Your task to perform on an android device: check data usage Image 0: 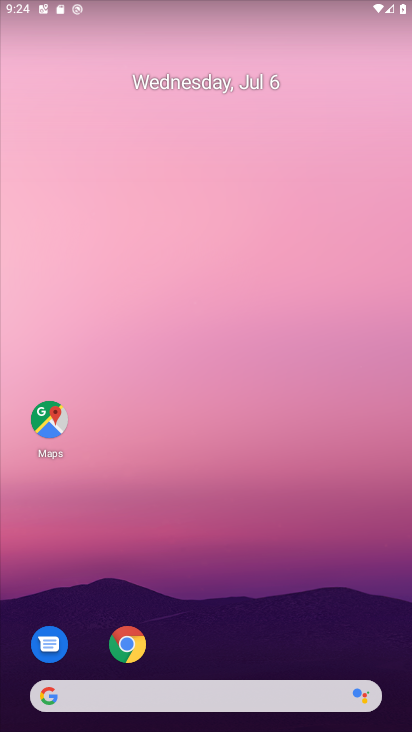
Step 0: drag from (255, 601) to (255, 32)
Your task to perform on an android device: check data usage Image 1: 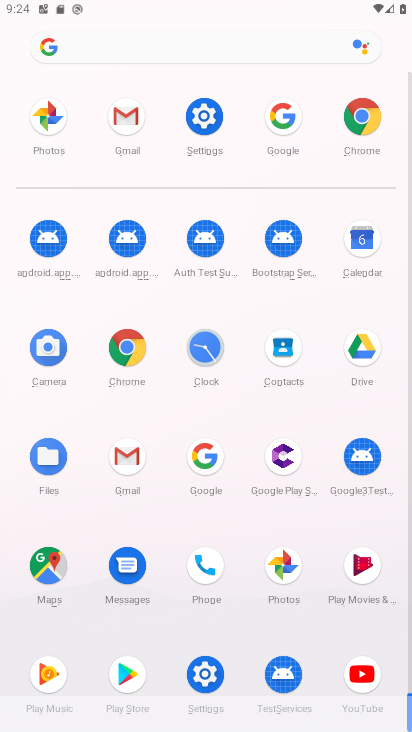
Step 1: click (188, 131)
Your task to perform on an android device: check data usage Image 2: 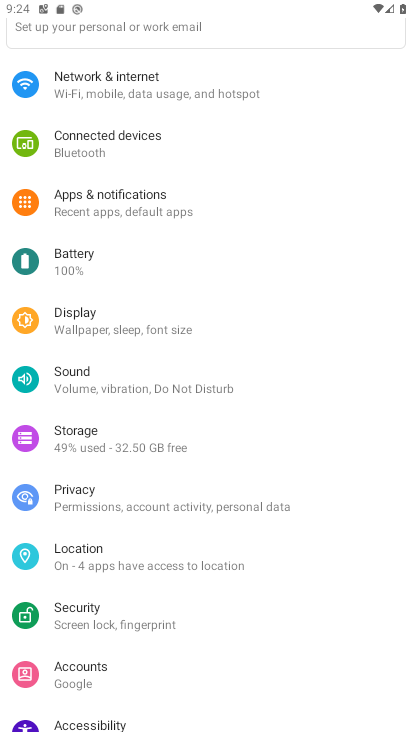
Step 2: press home button
Your task to perform on an android device: check data usage Image 3: 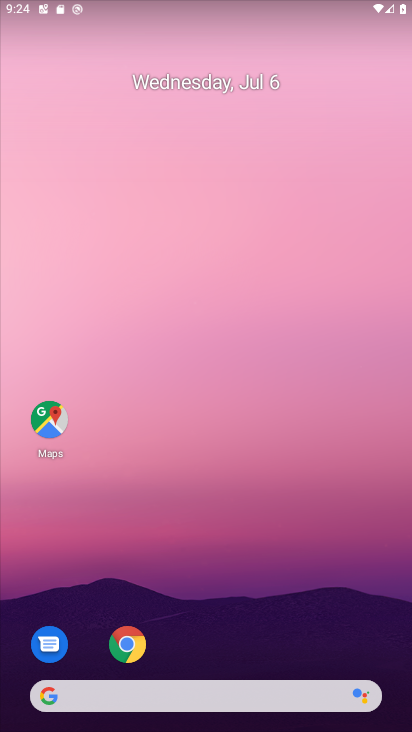
Step 3: drag from (179, 554) to (194, 14)
Your task to perform on an android device: check data usage Image 4: 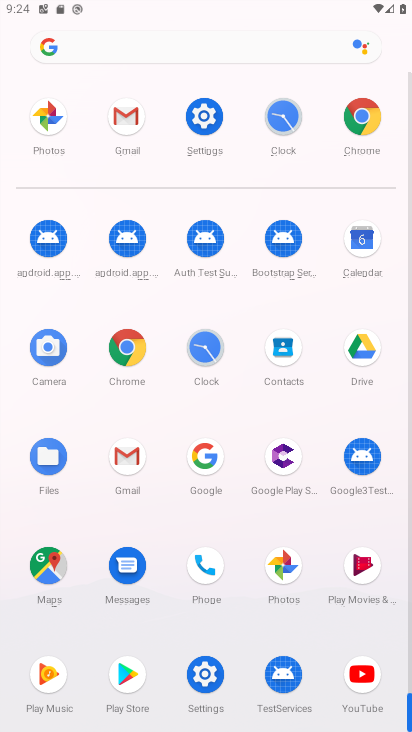
Step 4: click (203, 134)
Your task to perform on an android device: check data usage Image 5: 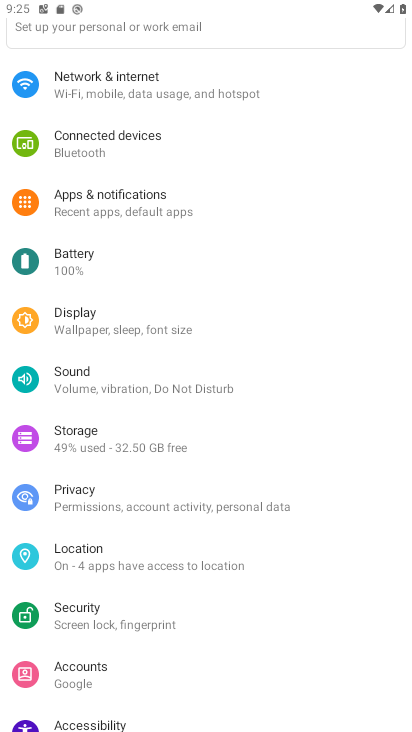
Step 5: drag from (199, 182) to (191, 445)
Your task to perform on an android device: check data usage Image 6: 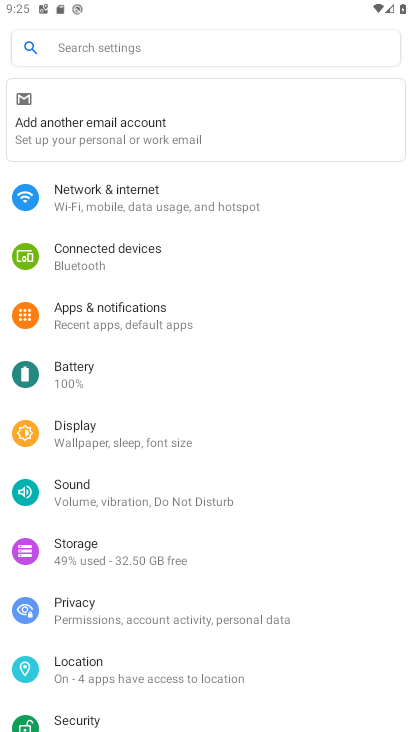
Step 6: click (171, 205)
Your task to perform on an android device: check data usage Image 7: 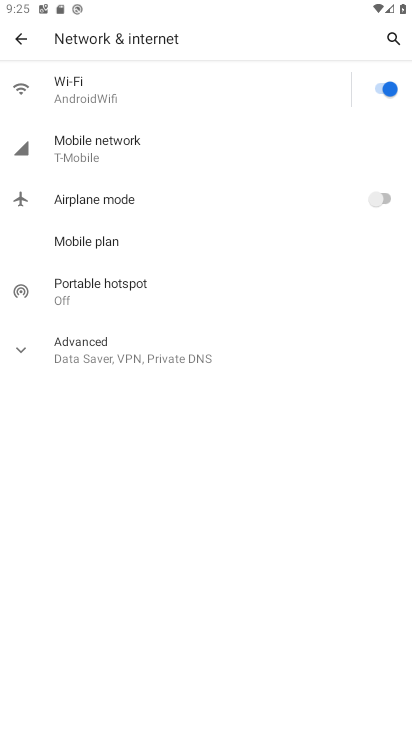
Step 7: click (162, 141)
Your task to perform on an android device: check data usage Image 8: 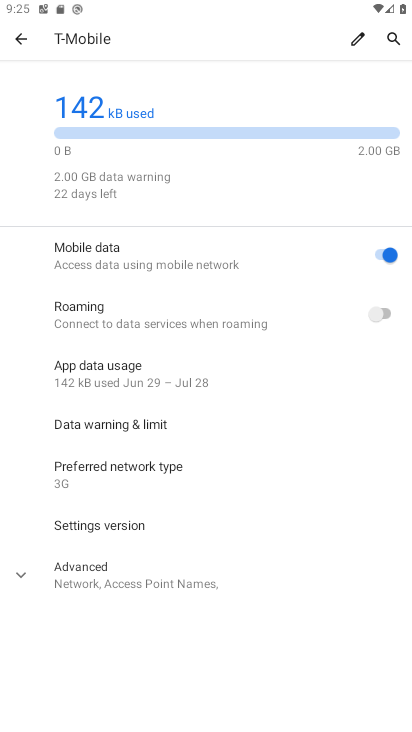
Step 8: click (140, 369)
Your task to perform on an android device: check data usage Image 9: 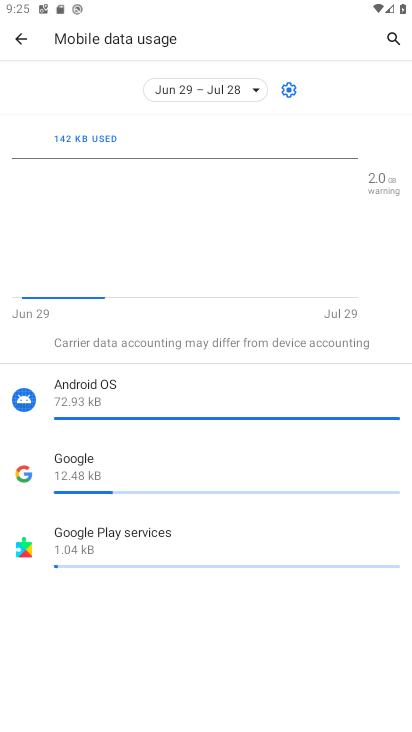
Step 9: task complete